Your task to perform on an android device: turn on translation in the chrome app Image 0: 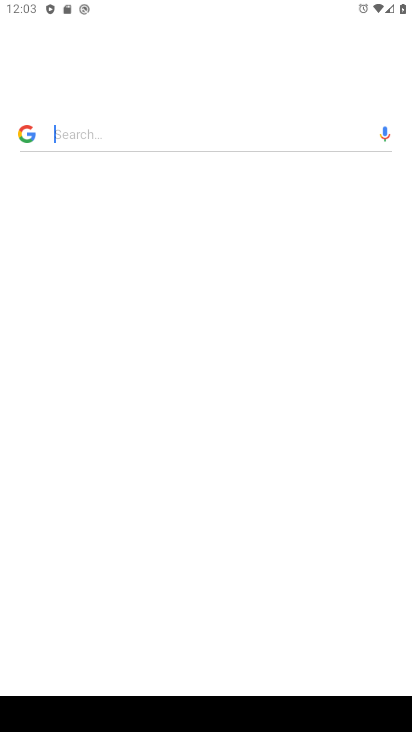
Step 0: press home button
Your task to perform on an android device: turn on translation in the chrome app Image 1: 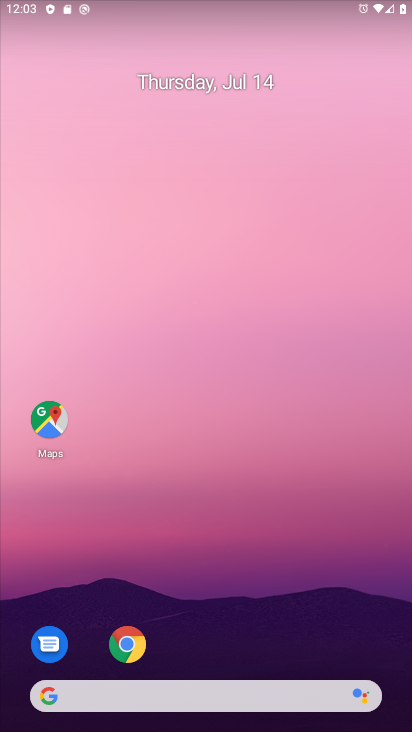
Step 1: click (138, 643)
Your task to perform on an android device: turn on translation in the chrome app Image 2: 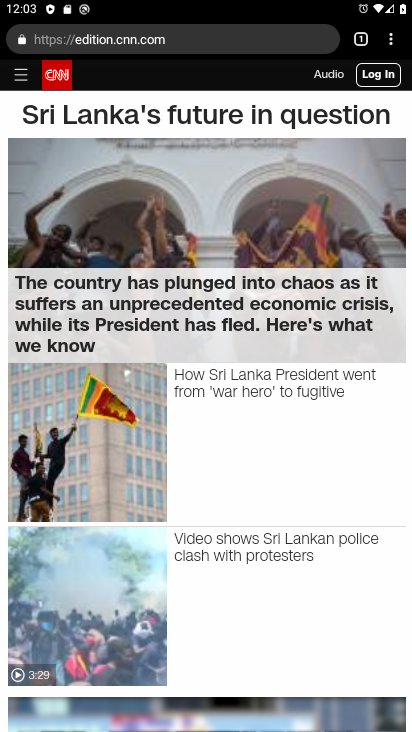
Step 2: click (386, 44)
Your task to perform on an android device: turn on translation in the chrome app Image 3: 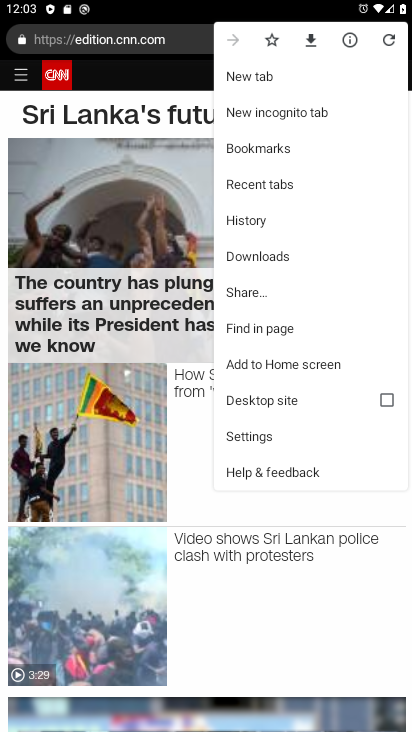
Step 3: click (255, 435)
Your task to perform on an android device: turn on translation in the chrome app Image 4: 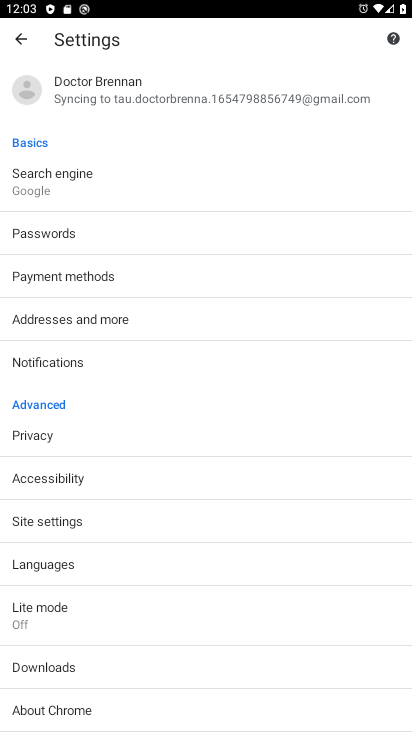
Step 4: click (23, 567)
Your task to perform on an android device: turn on translation in the chrome app Image 5: 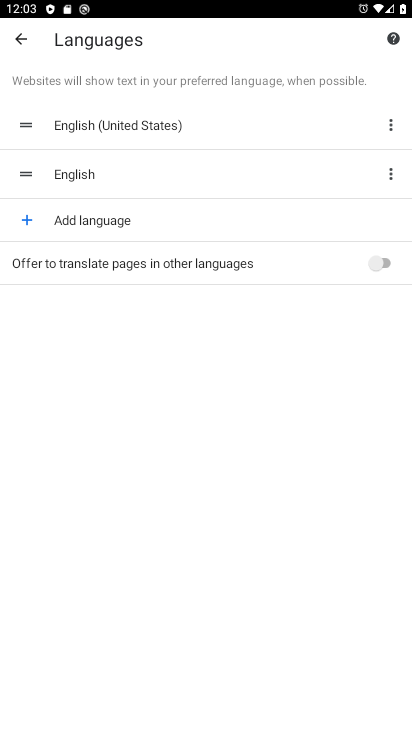
Step 5: click (384, 265)
Your task to perform on an android device: turn on translation in the chrome app Image 6: 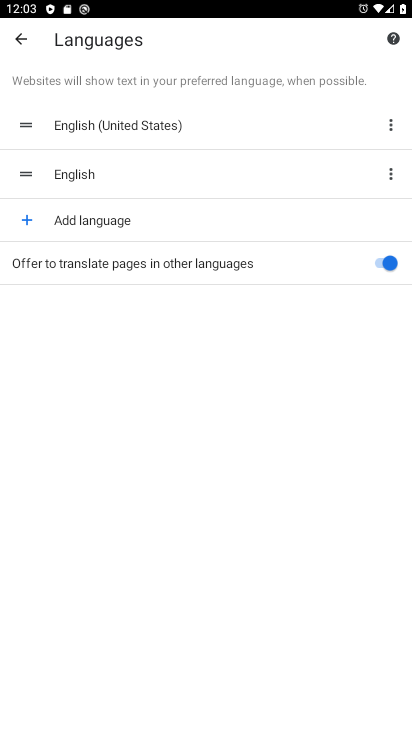
Step 6: task complete